Your task to perform on an android device: Open network settings Image 0: 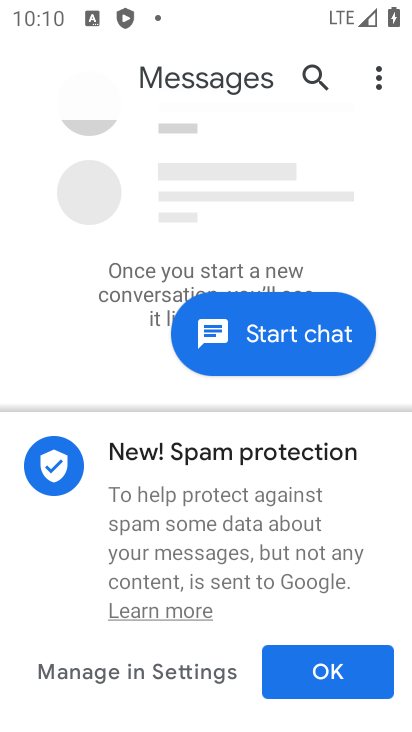
Step 0: press home button
Your task to perform on an android device: Open network settings Image 1: 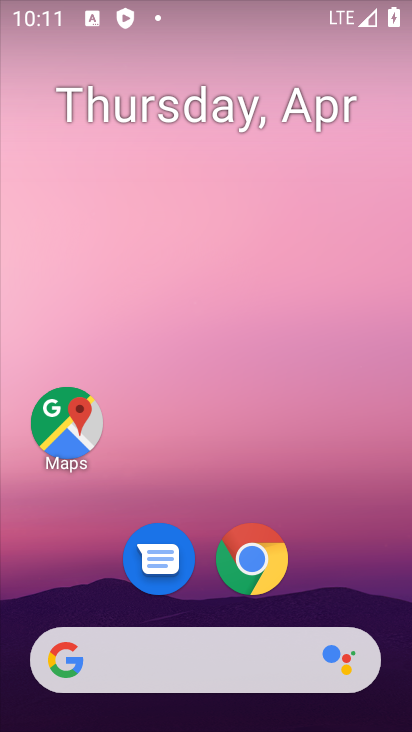
Step 1: drag from (245, 725) to (225, 49)
Your task to perform on an android device: Open network settings Image 2: 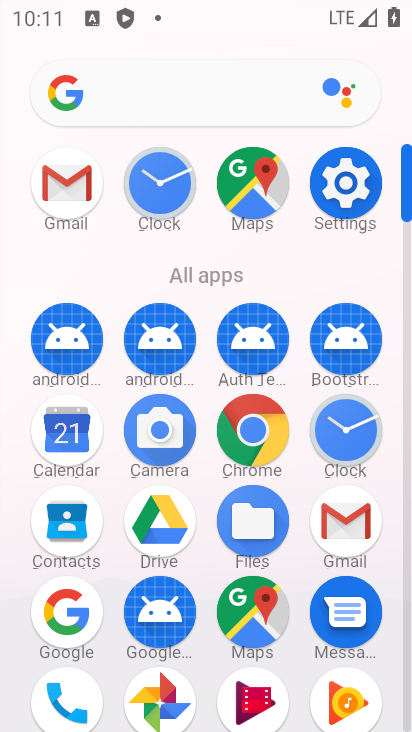
Step 2: click (367, 193)
Your task to perform on an android device: Open network settings Image 3: 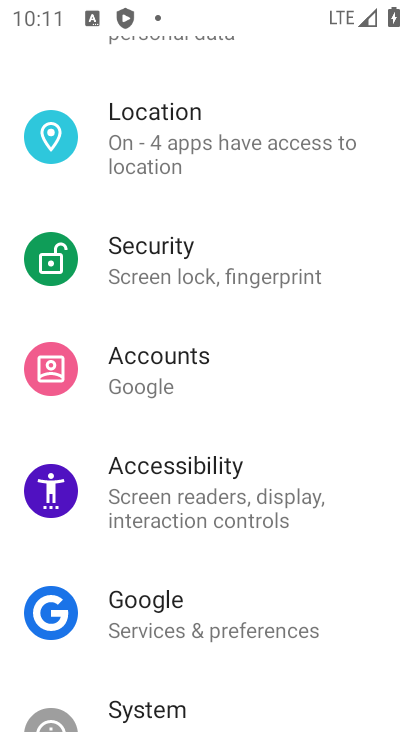
Step 3: drag from (336, 158) to (331, 715)
Your task to perform on an android device: Open network settings Image 4: 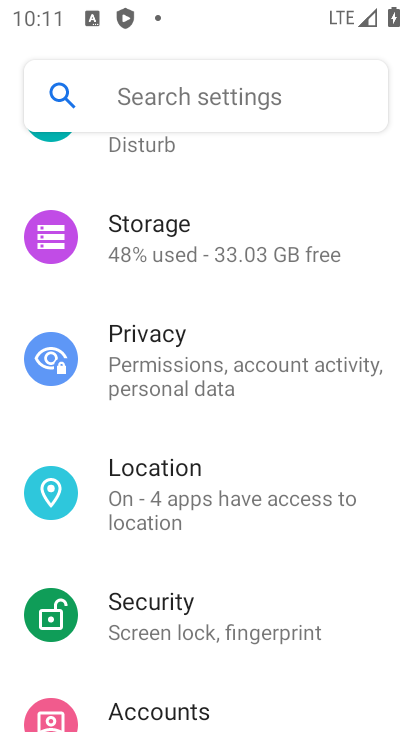
Step 4: drag from (366, 178) to (299, 648)
Your task to perform on an android device: Open network settings Image 5: 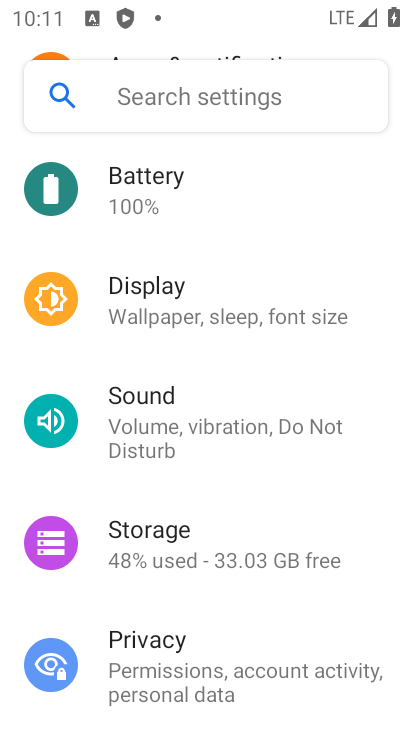
Step 5: drag from (364, 280) to (349, 592)
Your task to perform on an android device: Open network settings Image 6: 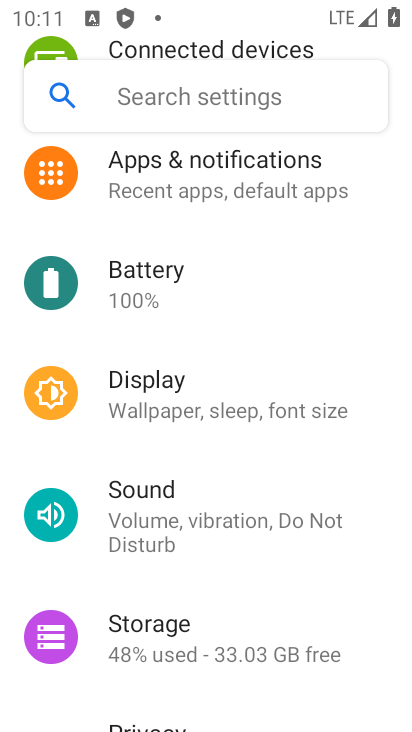
Step 6: drag from (341, 183) to (360, 611)
Your task to perform on an android device: Open network settings Image 7: 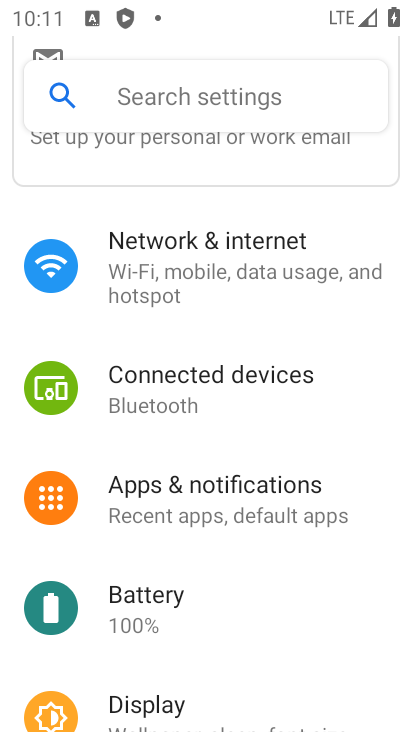
Step 7: click (307, 264)
Your task to perform on an android device: Open network settings Image 8: 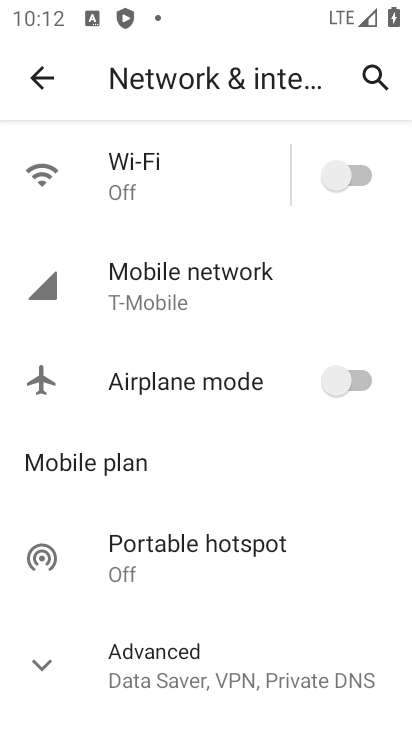
Step 8: task complete